Your task to perform on an android device: turn on bluetooth scan Image 0: 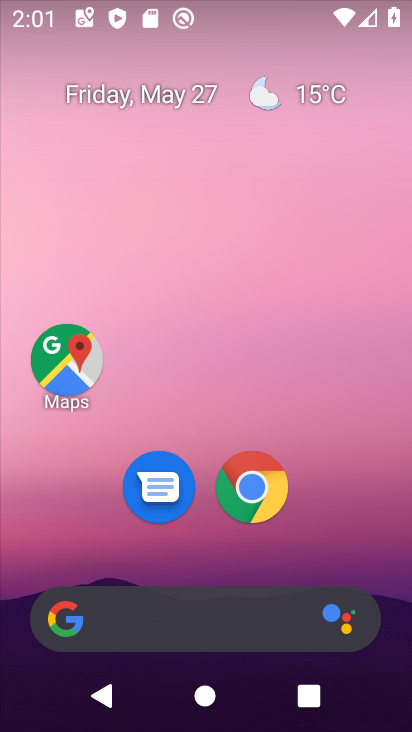
Step 0: drag from (196, 548) to (245, 47)
Your task to perform on an android device: turn on bluetooth scan Image 1: 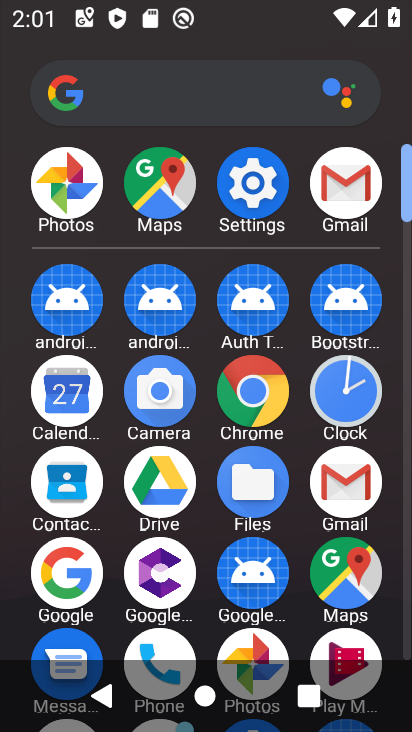
Step 1: click (238, 194)
Your task to perform on an android device: turn on bluetooth scan Image 2: 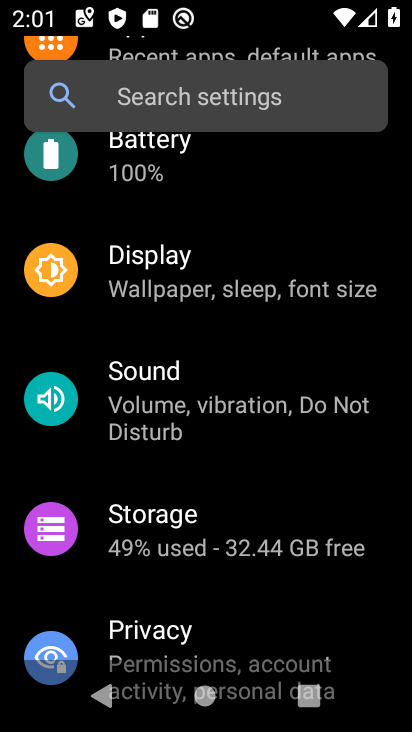
Step 2: drag from (130, 582) to (206, 187)
Your task to perform on an android device: turn on bluetooth scan Image 3: 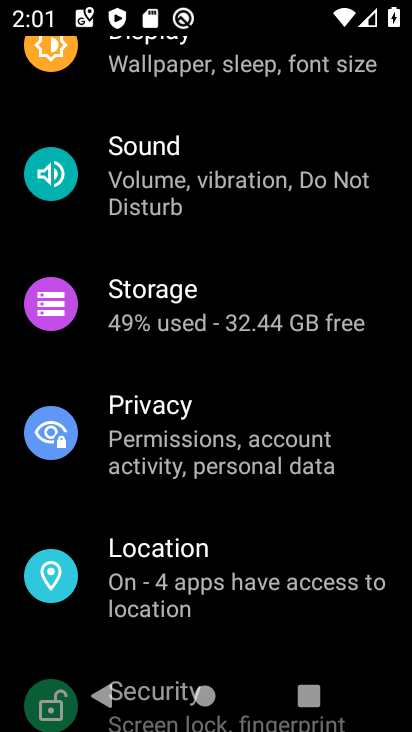
Step 3: click (144, 562)
Your task to perform on an android device: turn on bluetooth scan Image 4: 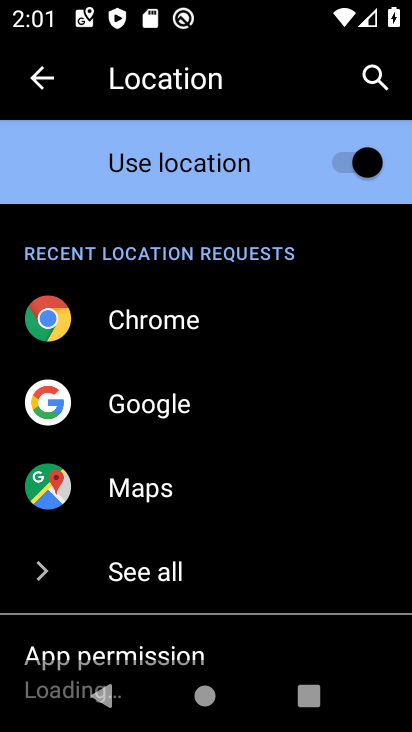
Step 4: drag from (154, 616) to (257, 104)
Your task to perform on an android device: turn on bluetooth scan Image 5: 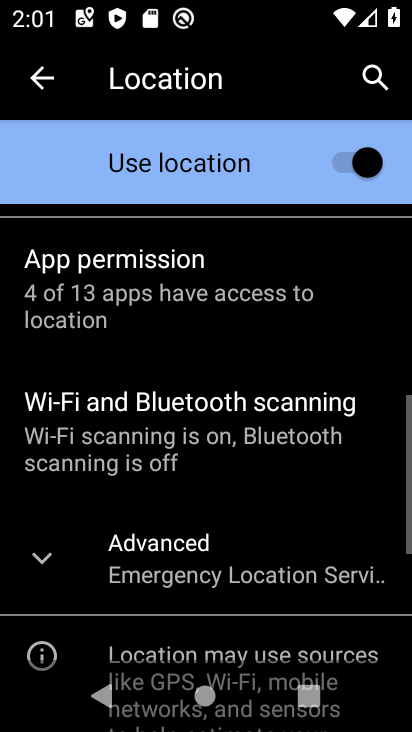
Step 5: click (178, 502)
Your task to perform on an android device: turn on bluetooth scan Image 6: 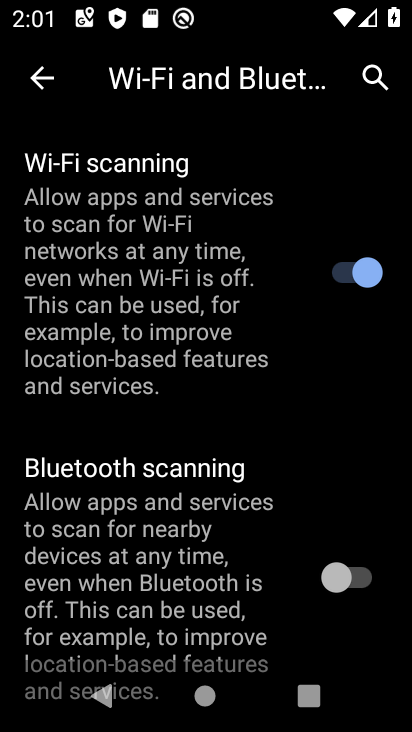
Step 6: click (364, 578)
Your task to perform on an android device: turn on bluetooth scan Image 7: 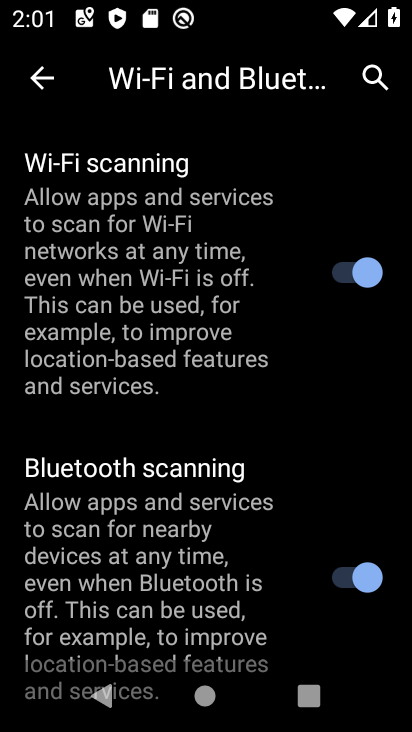
Step 7: task complete